Your task to perform on an android device: Go to location settings Image 0: 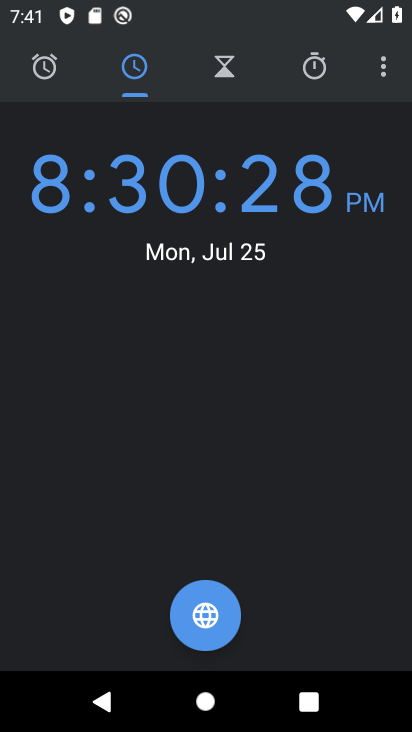
Step 0: press home button
Your task to perform on an android device: Go to location settings Image 1: 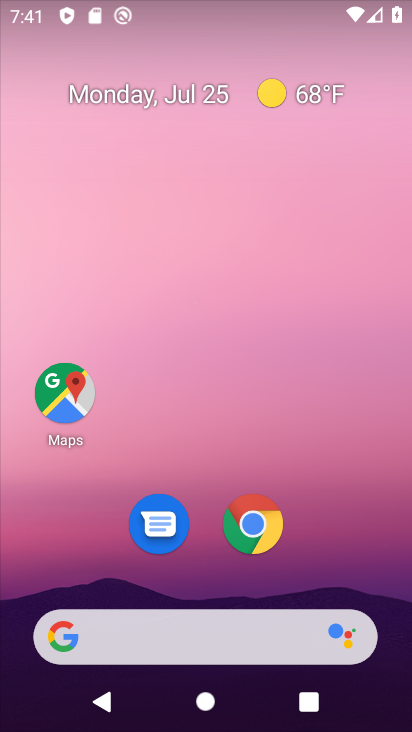
Step 1: drag from (334, 535) to (312, 18)
Your task to perform on an android device: Go to location settings Image 2: 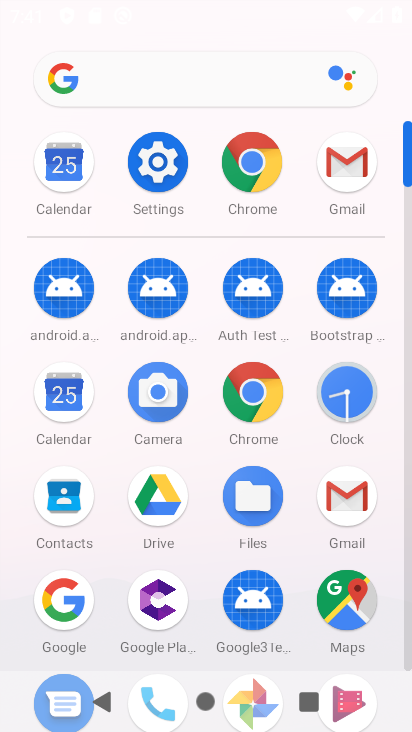
Step 2: click (167, 164)
Your task to perform on an android device: Go to location settings Image 3: 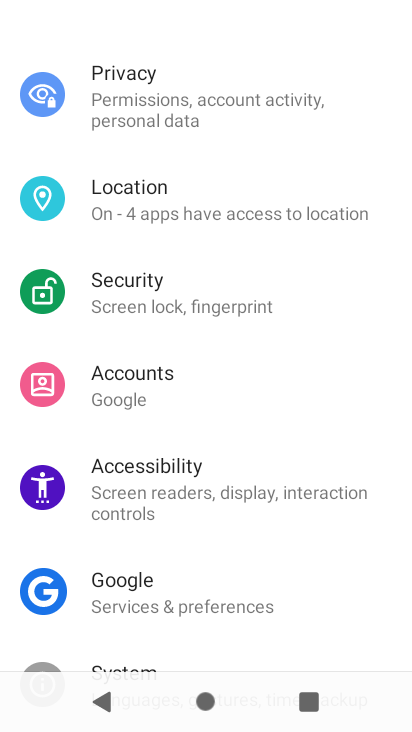
Step 3: click (223, 205)
Your task to perform on an android device: Go to location settings Image 4: 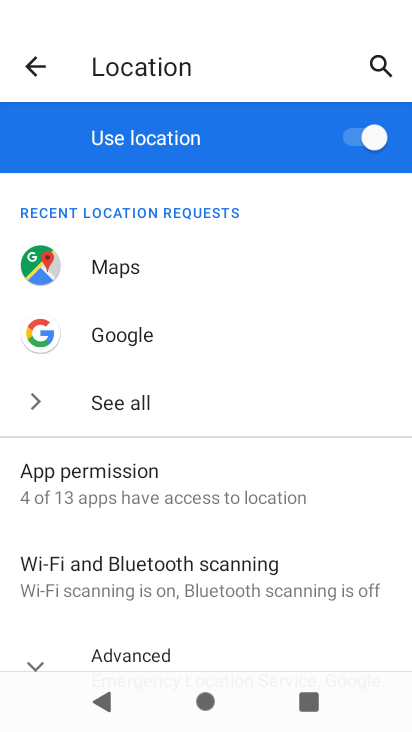
Step 4: task complete